Your task to perform on an android device: remove spam from my inbox in the gmail app Image 0: 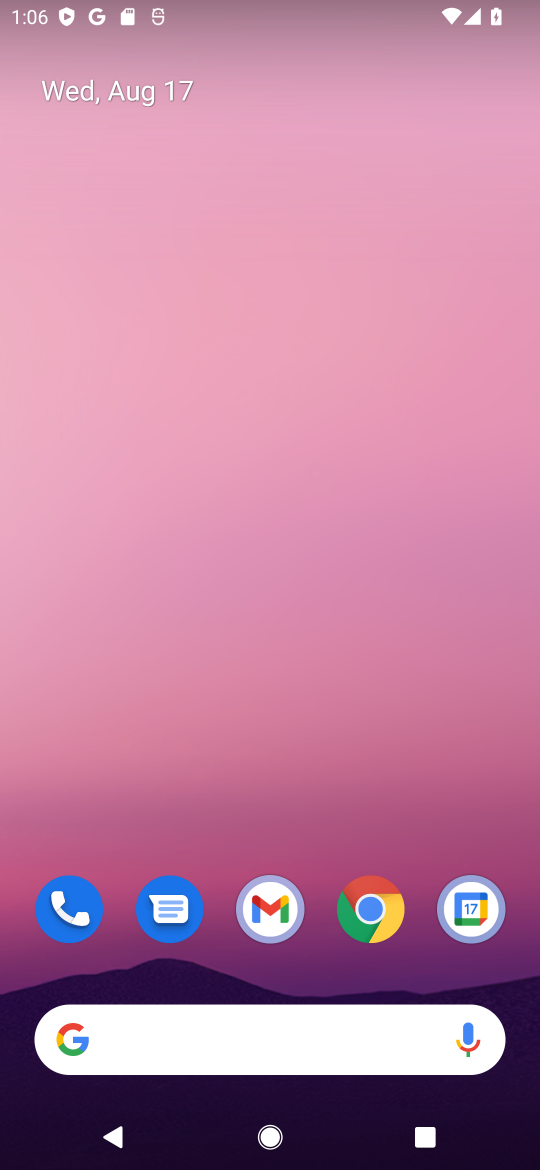
Step 0: click (266, 922)
Your task to perform on an android device: remove spam from my inbox in the gmail app Image 1: 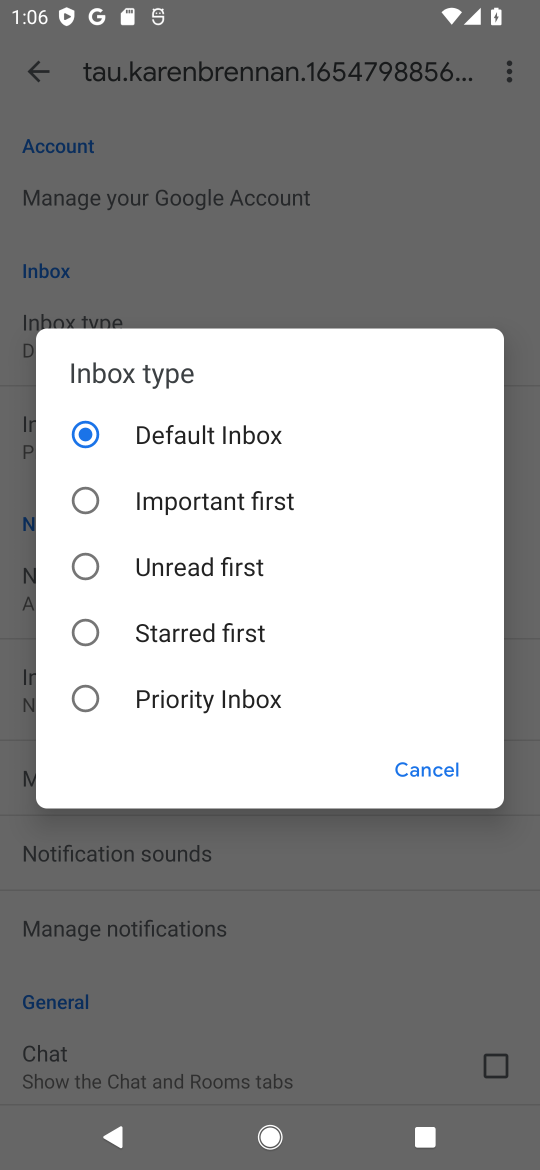
Step 1: click (408, 763)
Your task to perform on an android device: remove spam from my inbox in the gmail app Image 2: 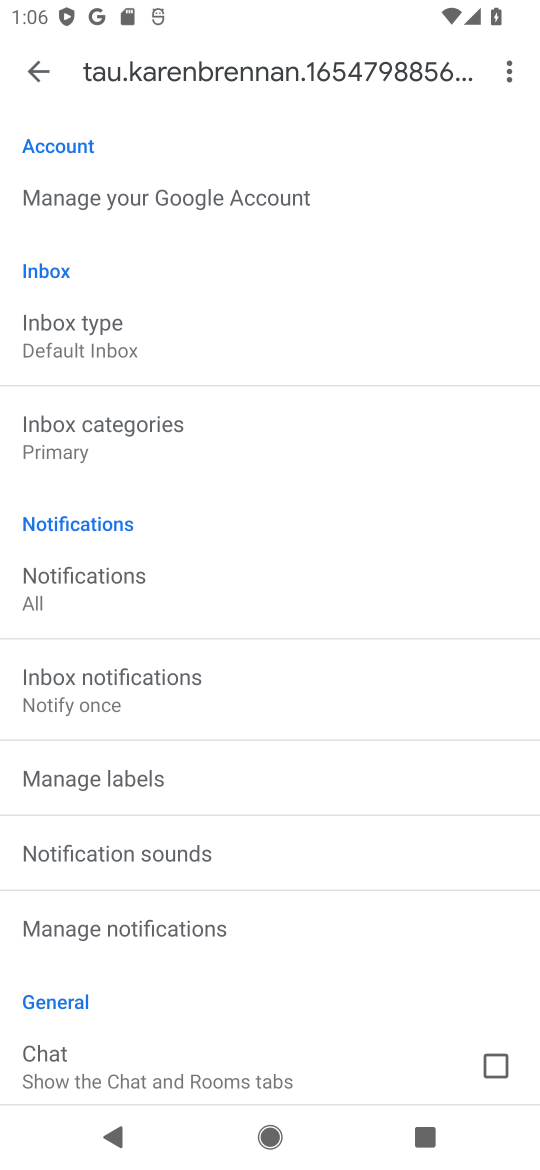
Step 2: click (41, 69)
Your task to perform on an android device: remove spam from my inbox in the gmail app Image 3: 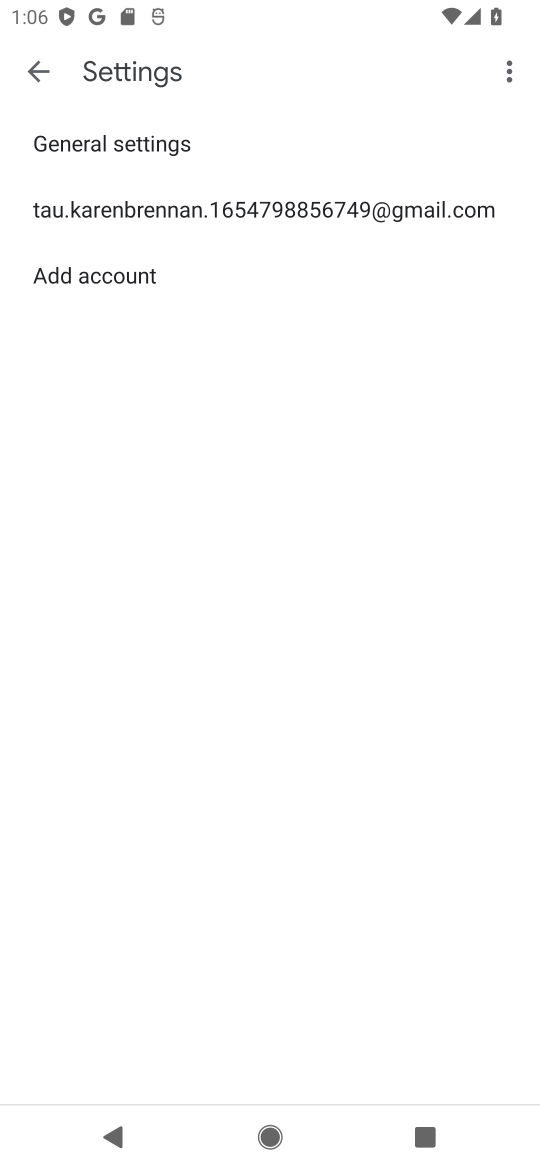
Step 3: click (41, 69)
Your task to perform on an android device: remove spam from my inbox in the gmail app Image 4: 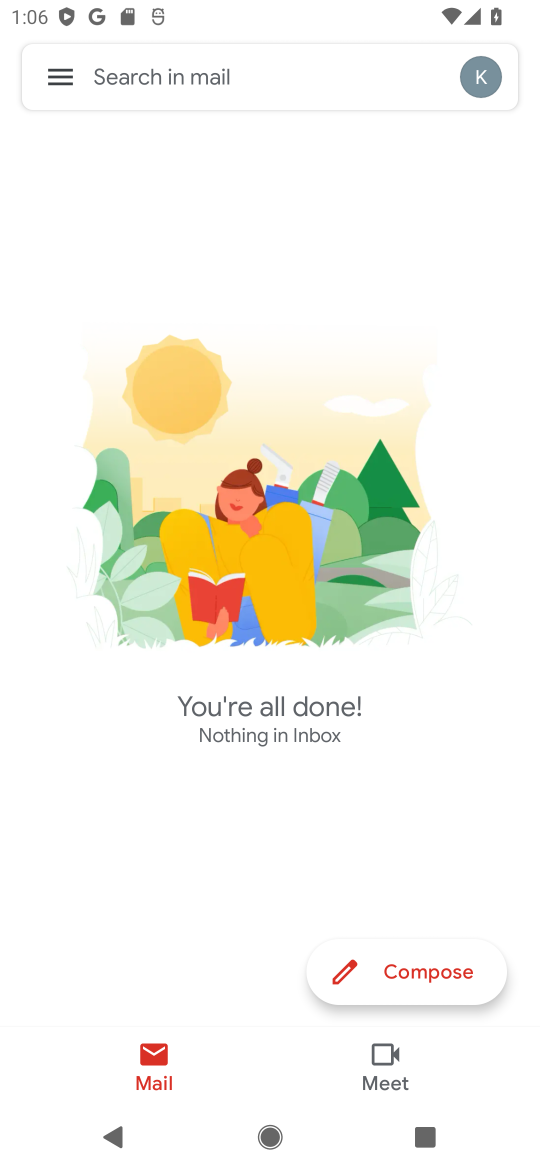
Step 4: click (56, 72)
Your task to perform on an android device: remove spam from my inbox in the gmail app Image 5: 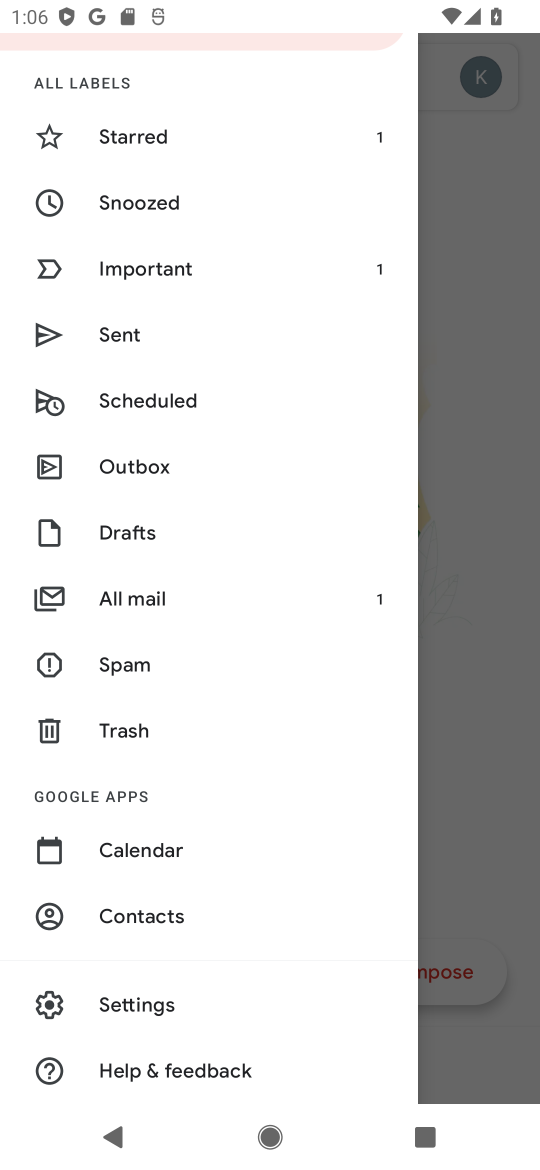
Step 5: click (128, 659)
Your task to perform on an android device: remove spam from my inbox in the gmail app Image 6: 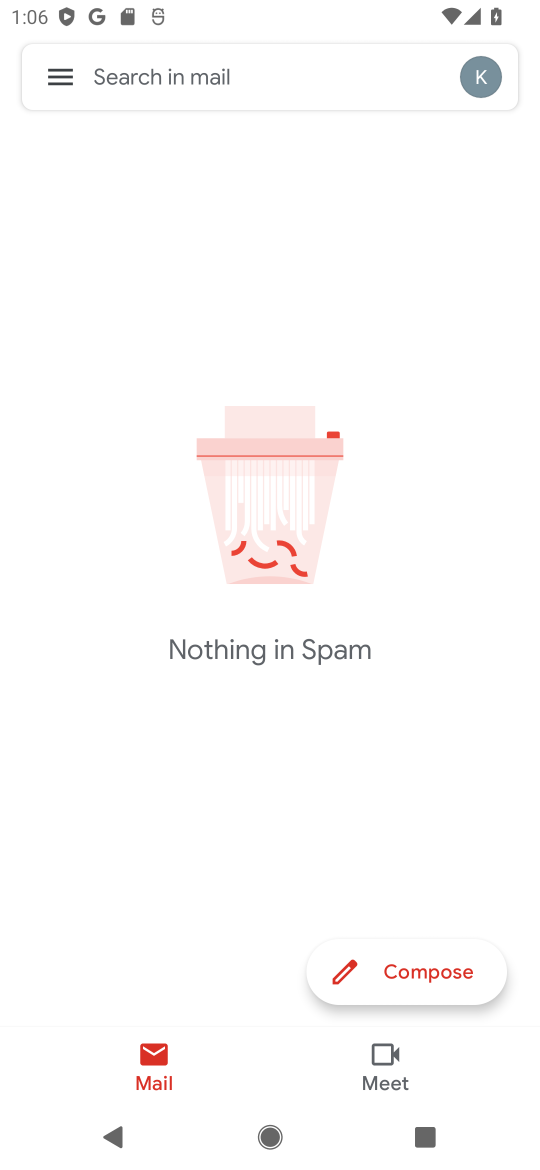
Step 6: task complete